Your task to perform on an android device: Go to accessibility settings Image 0: 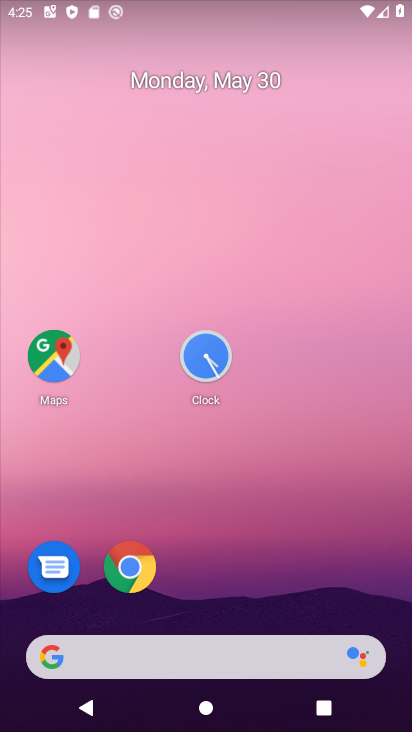
Step 0: drag from (275, 668) to (220, 217)
Your task to perform on an android device: Go to accessibility settings Image 1: 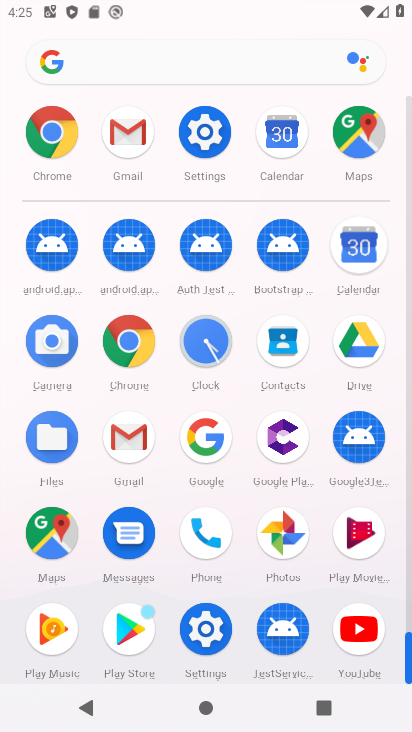
Step 1: click (203, 629)
Your task to perform on an android device: Go to accessibility settings Image 2: 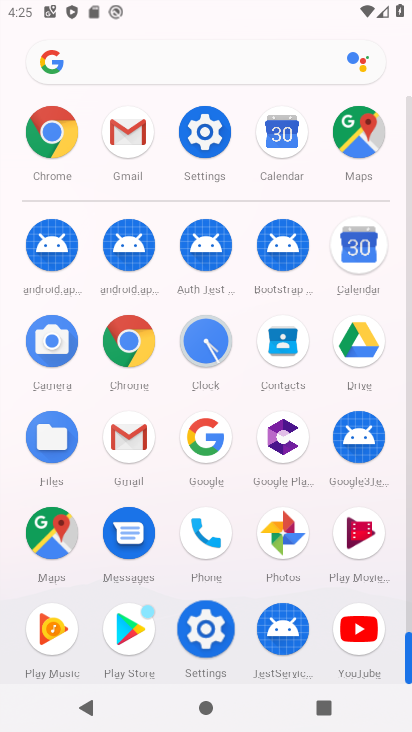
Step 2: click (202, 630)
Your task to perform on an android device: Go to accessibility settings Image 3: 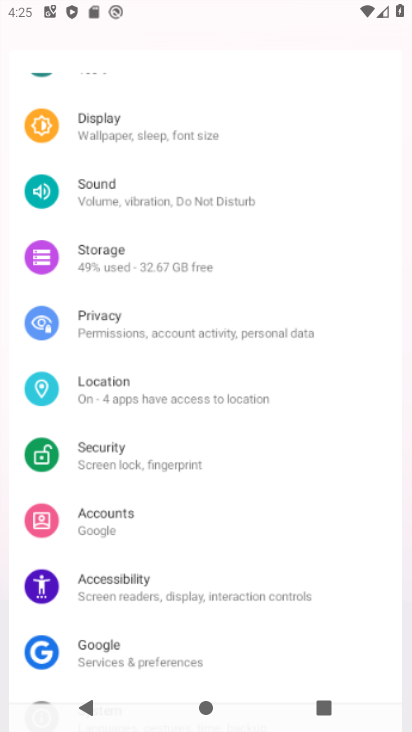
Step 3: click (202, 630)
Your task to perform on an android device: Go to accessibility settings Image 4: 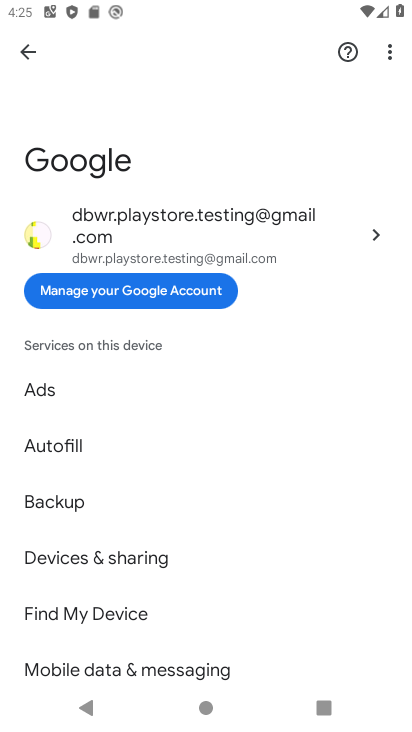
Step 4: click (24, 49)
Your task to perform on an android device: Go to accessibility settings Image 5: 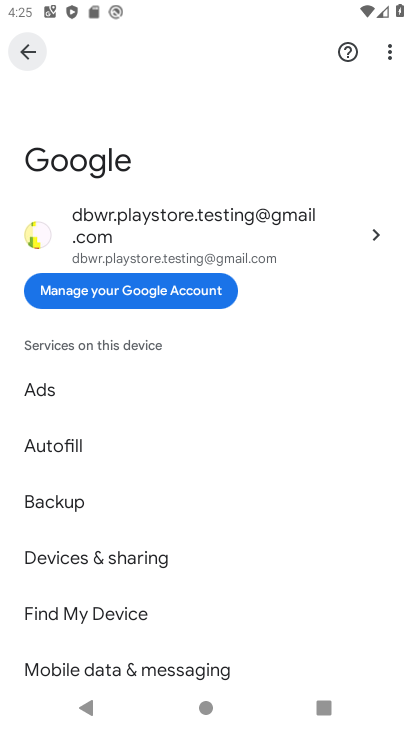
Step 5: click (25, 49)
Your task to perform on an android device: Go to accessibility settings Image 6: 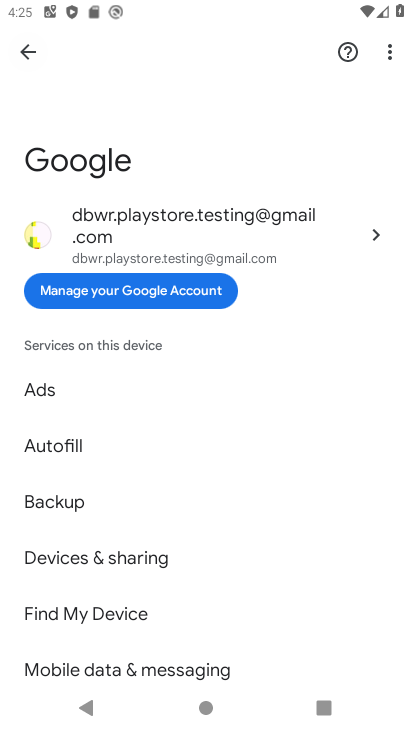
Step 6: click (25, 49)
Your task to perform on an android device: Go to accessibility settings Image 7: 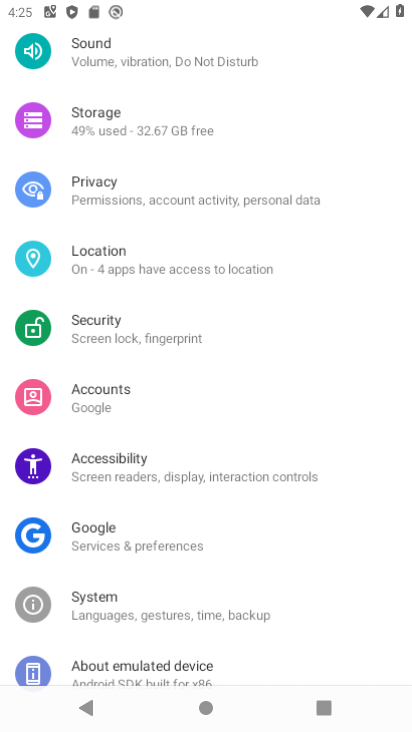
Step 7: click (26, 49)
Your task to perform on an android device: Go to accessibility settings Image 8: 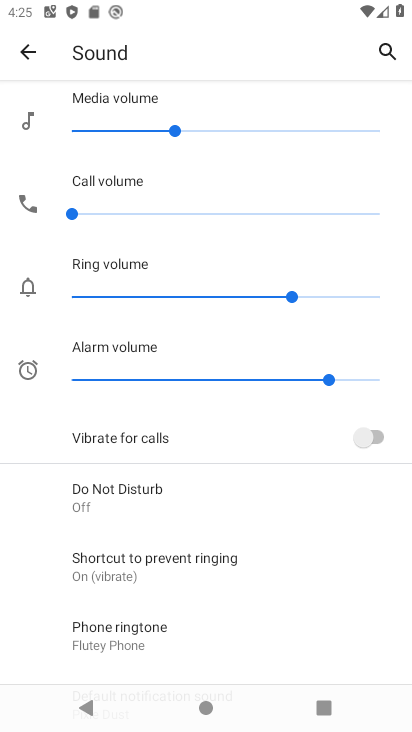
Step 8: click (30, 62)
Your task to perform on an android device: Go to accessibility settings Image 9: 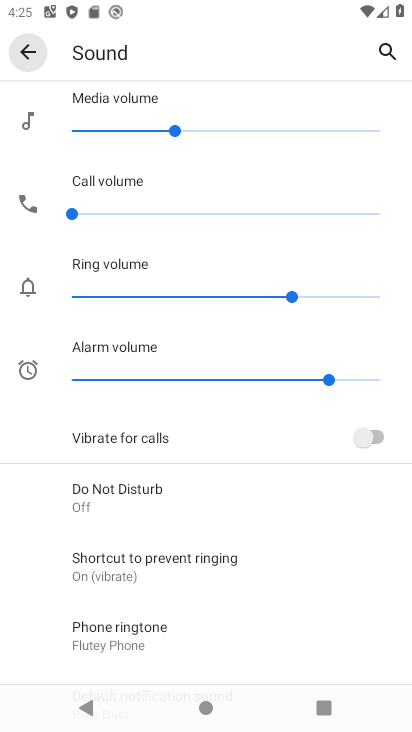
Step 9: click (30, 62)
Your task to perform on an android device: Go to accessibility settings Image 10: 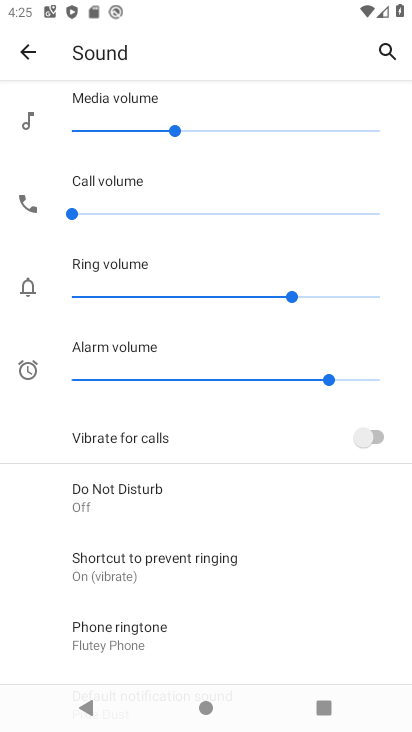
Step 10: click (30, 62)
Your task to perform on an android device: Go to accessibility settings Image 11: 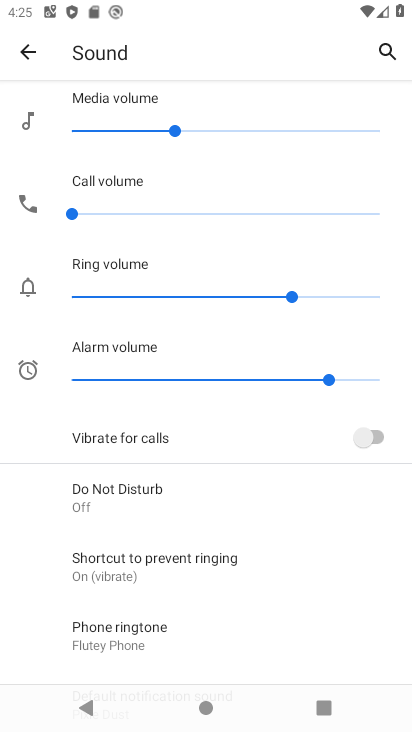
Step 11: click (22, 47)
Your task to perform on an android device: Go to accessibility settings Image 12: 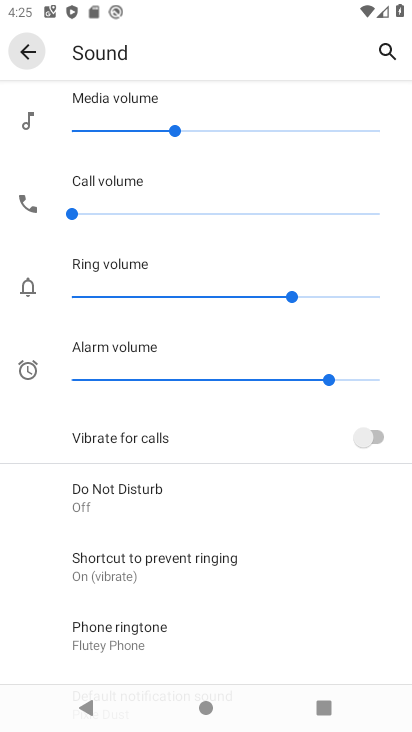
Step 12: click (22, 47)
Your task to perform on an android device: Go to accessibility settings Image 13: 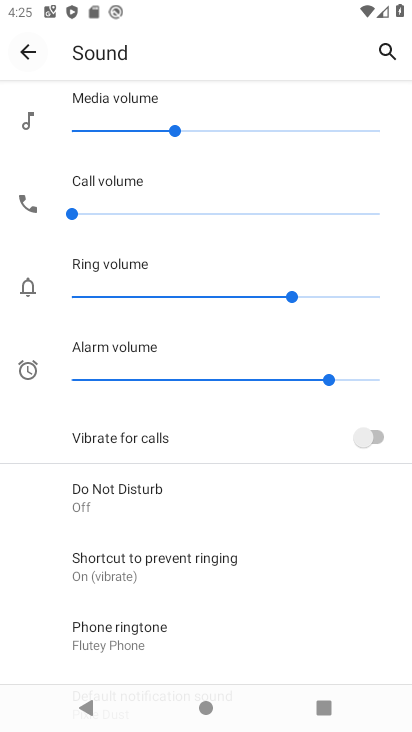
Step 13: click (22, 47)
Your task to perform on an android device: Go to accessibility settings Image 14: 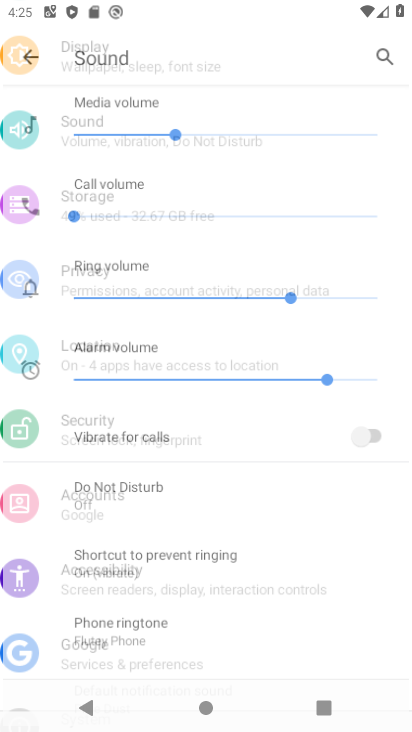
Step 14: click (22, 47)
Your task to perform on an android device: Go to accessibility settings Image 15: 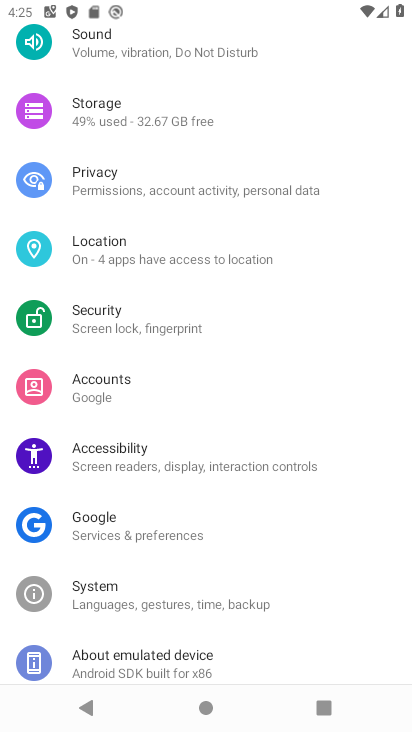
Step 15: click (22, 46)
Your task to perform on an android device: Go to accessibility settings Image 16: 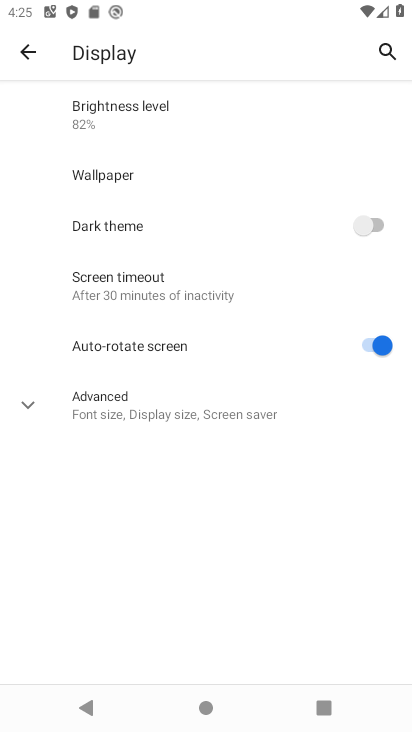
Step 16: click (30, 51)
Your task to perform on an android device: Go to accessibility settings Image 17: 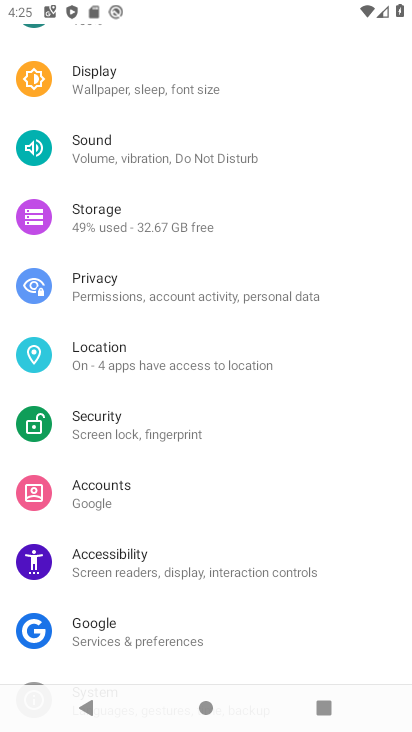
Step 17: click (114, 568)
Your task to perform on an android device: Go to accessibility settings Image 18: 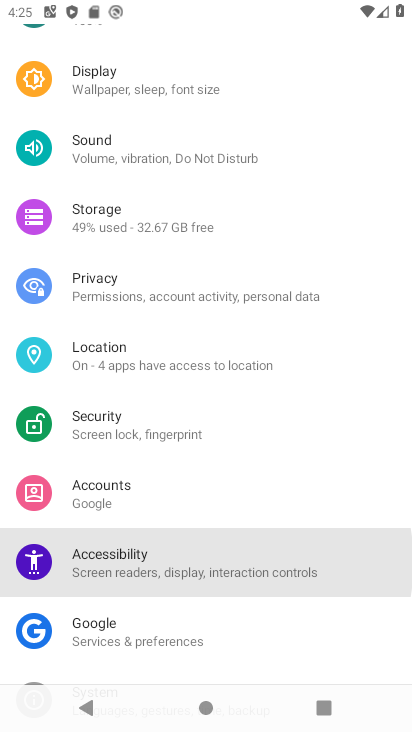
Step 18: click (114, 568)
Your task to perform on an android device: Go to accessibility settings Image 19: 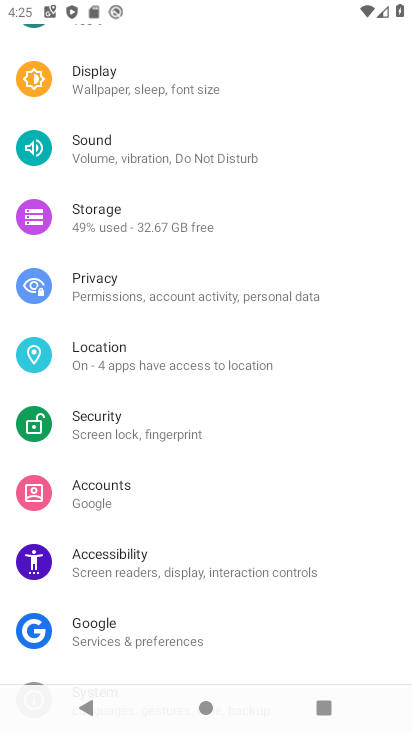
Step 19: click (113, 568)
Your task to perform on an android device: Go to accessibility settings Image 20: 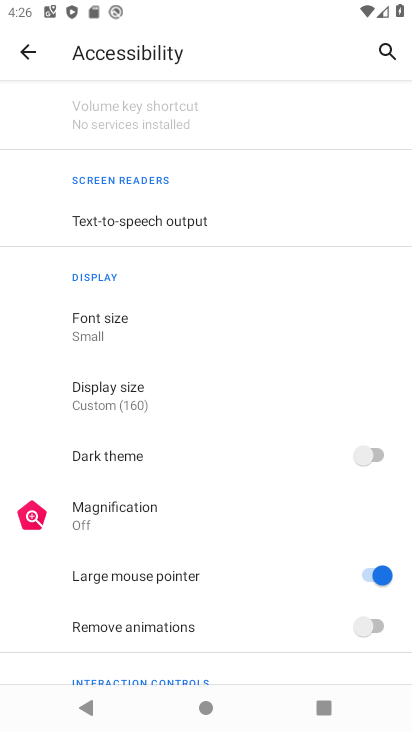
Step 20: task complete